Your task to perform on an android device: turn off airplane mode Image 0: 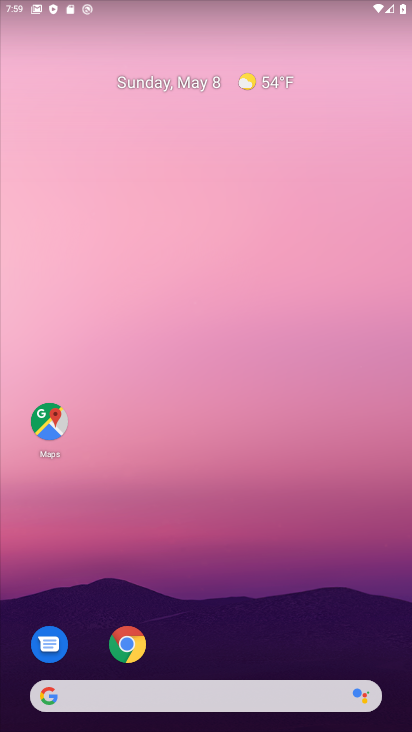
Step 0: drag from (182, 678) to (236, 229)
Your task to perform on an android device: turn off airplane mode Image 1: 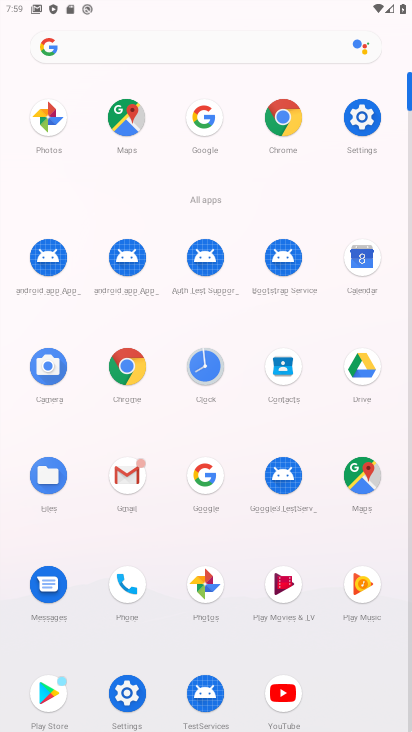
Step 1: click (366, 115)
Your task to perform on an android device: turn off airplane mode Image 2: 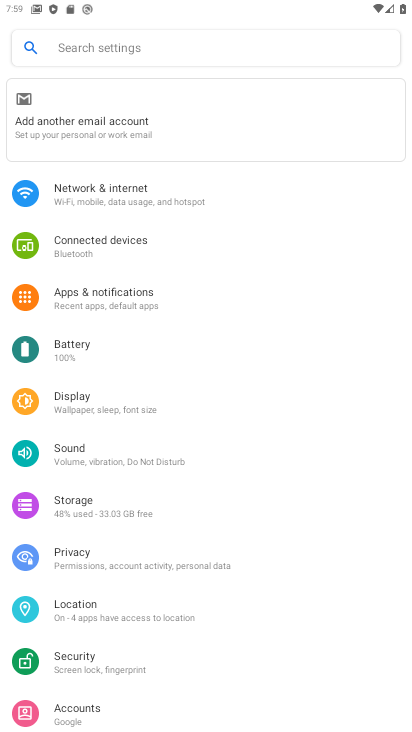
Step 2: click (128, 189)
Your task to perform on an android device: turn off airplane mode Image 3: 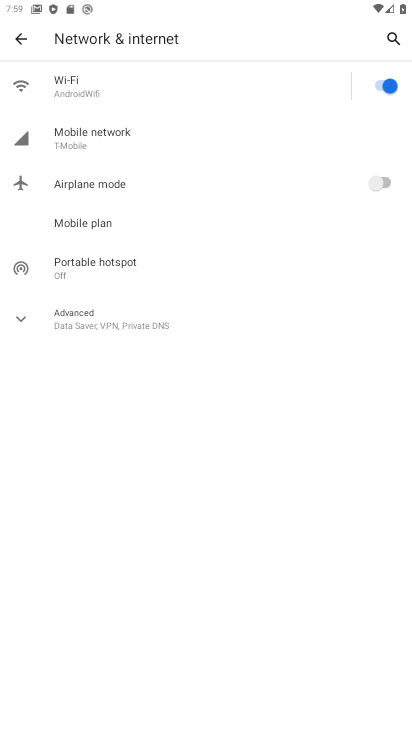
Step 3: task complete